Your task to perform on an android device: Is it going to rain this weekend? Image 0: 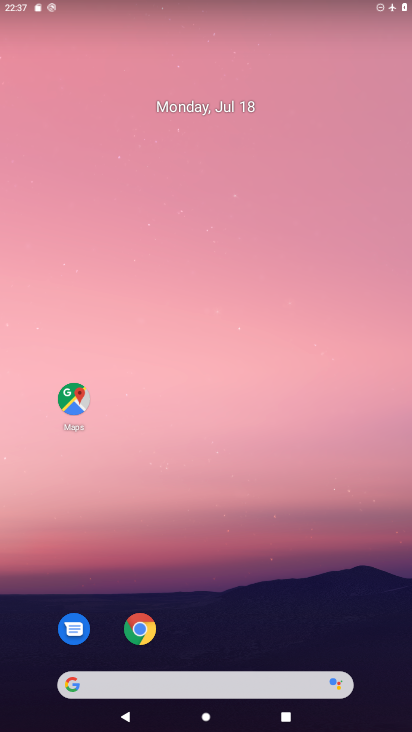
Step 0: drag from (307, 614) to (239, 137)
Your task to perform on an android device: Is it going to rain this weekend? Image 1: 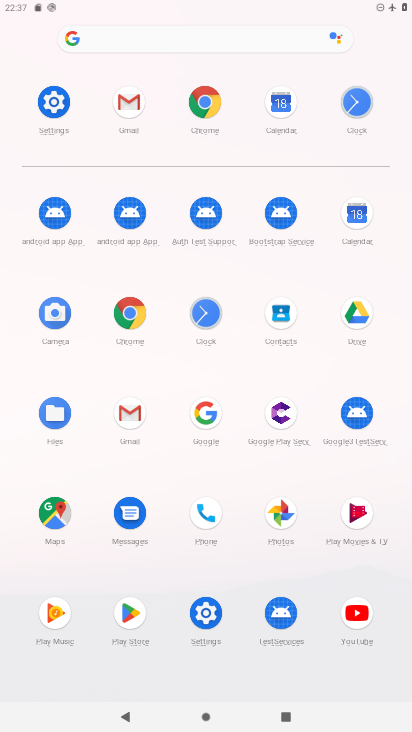
Step 1: click (203, 101)
Your task to perform on an android device: Is it going to rain this weekend? Image 2: 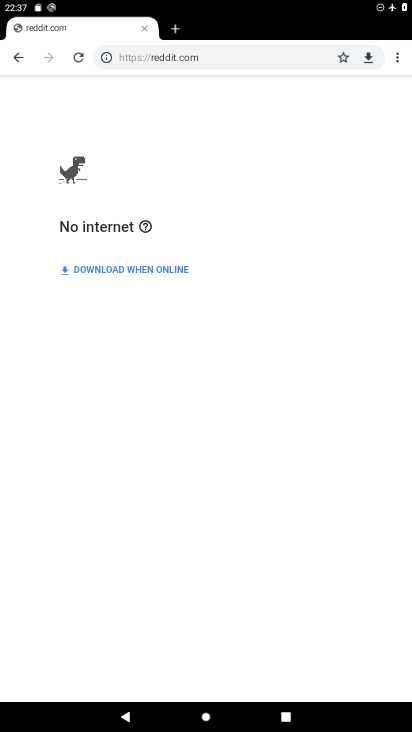
Step 2: click (221, 51)
Your task to perform on an android device: Is it going to rain this weekend? Image 3: 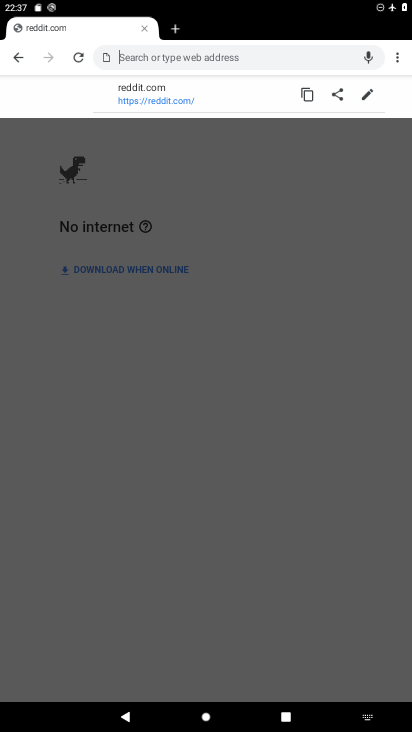
Step 3: type "weather"
Your task to perform on an android device: Is it going to rain this weekend? Image 4: 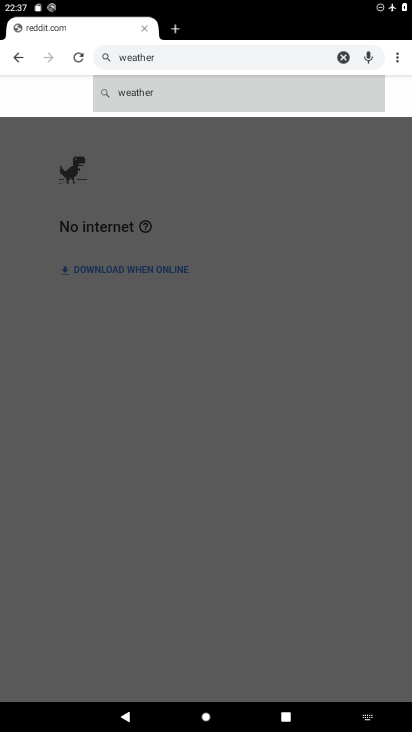
Step 4: click (149, 87)
Your task to perform on an android device: Is it going to rain this weekend? Image 5: 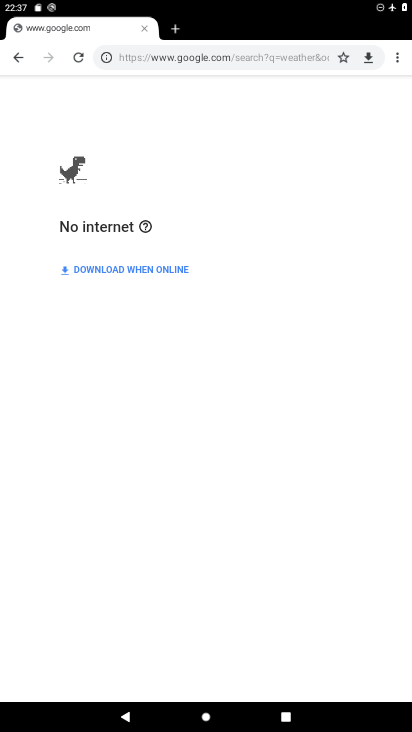
Step 5: task complete